Your task to perform on an android device: toggle priority inbox in the gmail app Image 0: 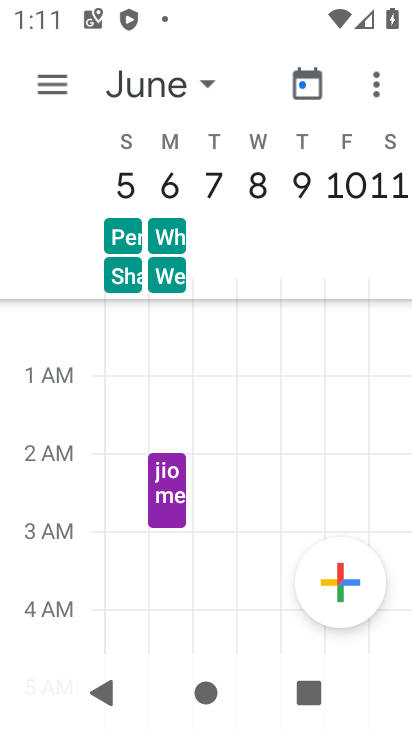
Step 0: press home button
Your task to perform on an android device: toggle priority inbox in the gmail app Image 1: 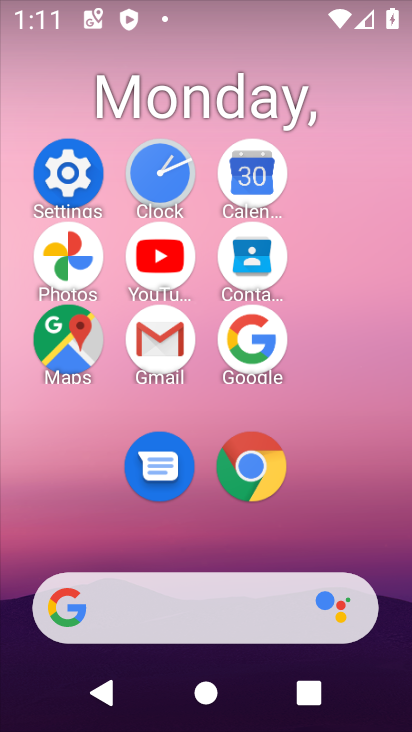
Step 1: click (156, 339)
Your task to perform on an android device: toggle priority inbox in the gmail app Image 2: 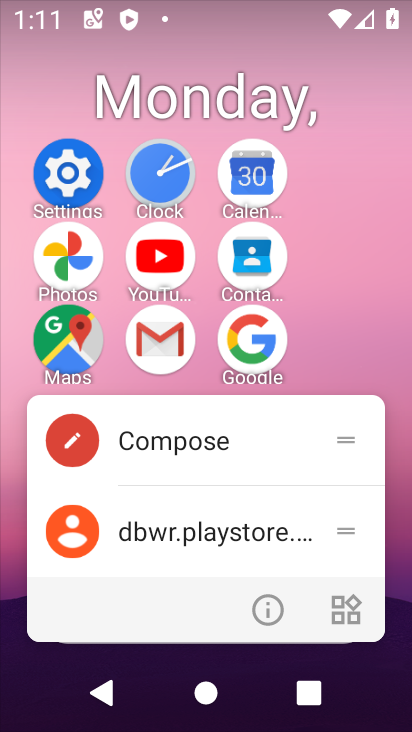
Step 2: click (154, 333)
Your task to perform on an android device: toggle priority inbox in the gmail app Image 3: 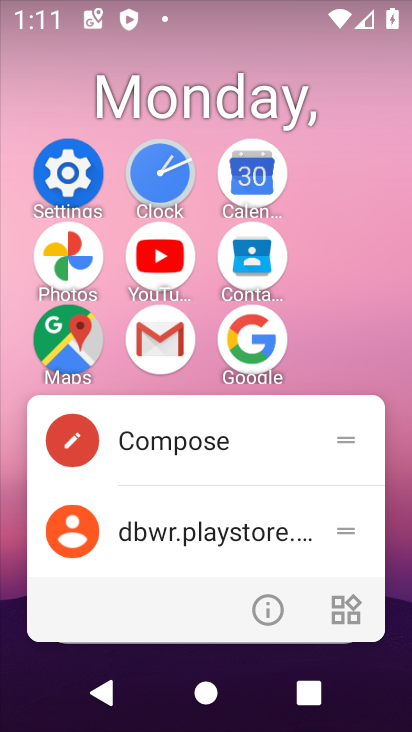
Step 3: click (189, 342)
Your task to perform on an android device: toggle priority inbox in the gmail app Image 4: 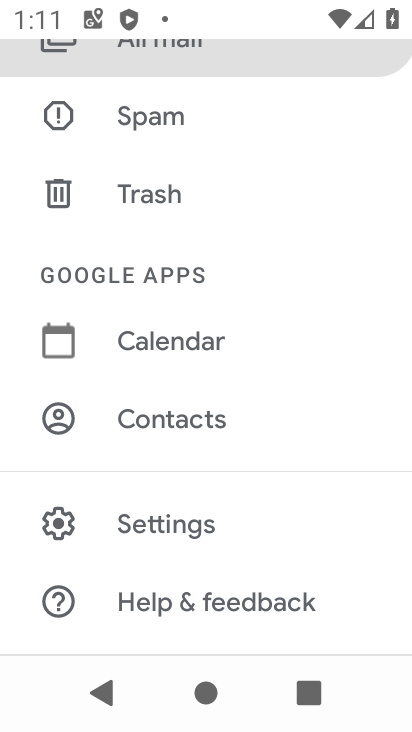
Step 4: drag from (284, 227) to (323, 564)
Your task to perform on an android device: toggle priority inbox in the gmail app Image 5: 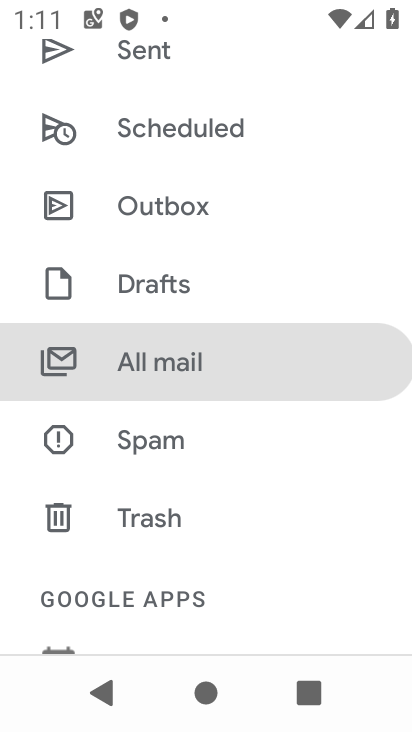
Step 5: drag from (296, 540) to (301, 229)
Your task to perform on an android device: toggle priority inbox in the gmail app Image 6: 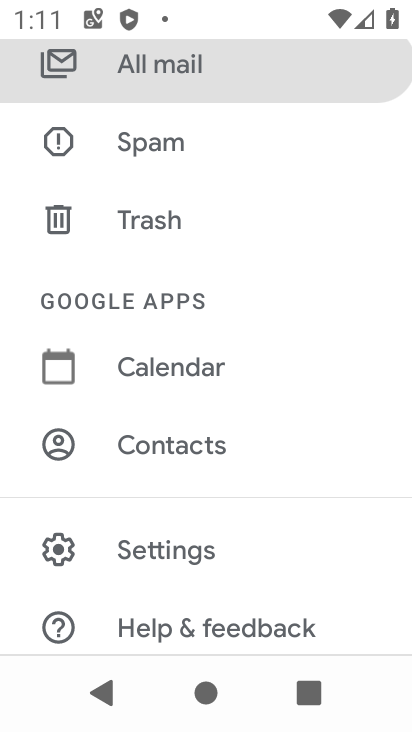
Step 6: click (252, 536)
Your task to perform on an android device: toggle priority inbox in the gmail app Image 7: 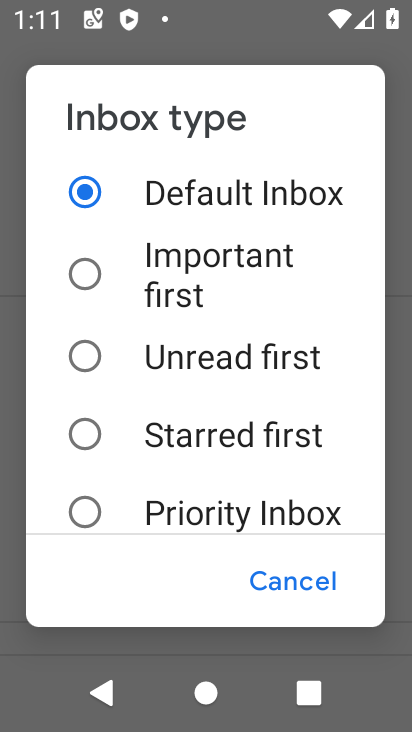
Step 7: click (259, 514)
Your task to perform on an android device: toggle priority inbox in the gmail app Image 8: 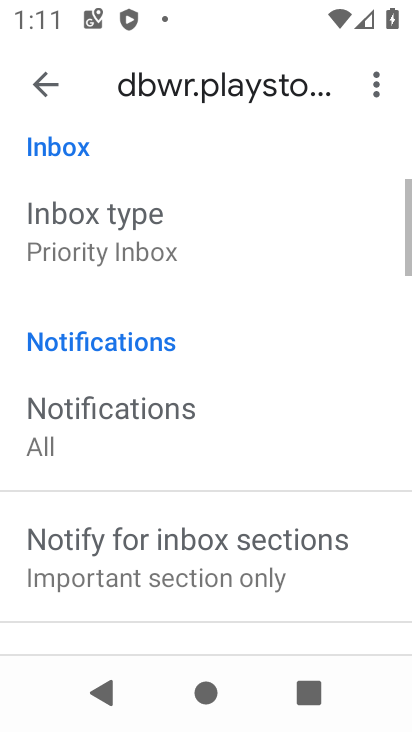
Step 8: task complete